Your task to perform on an android device: Open calendar and show me the third week of next month Image 0: 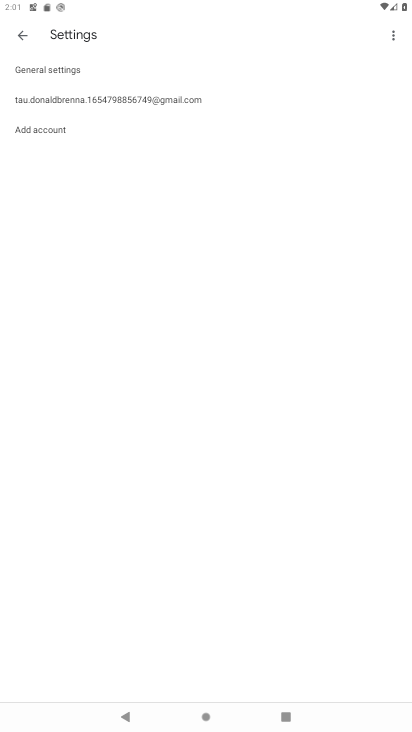
Step 0: press home button
Your task to perform on an android device: Open calendar and show me the third week of next month Image 1: 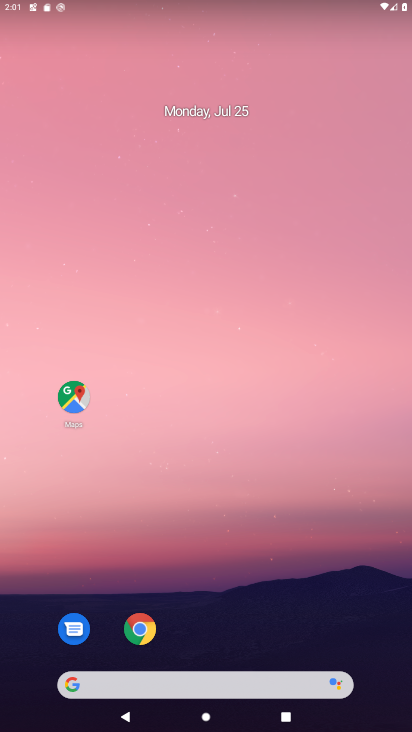
Step 1: drag from (338, 605) to (194, 238)
Your task to perform on an android device: Open calendar and show me the third week of next month Image 2: 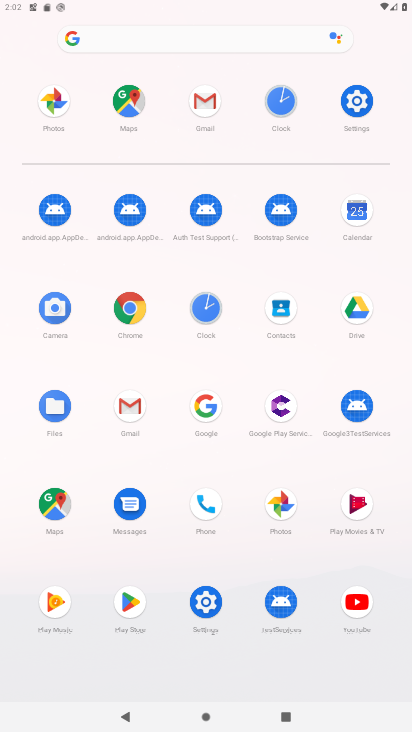
Step 2: click (363, 222)
Your task to perform on an android device: Open calendar and show me the third week of next month Image 3: 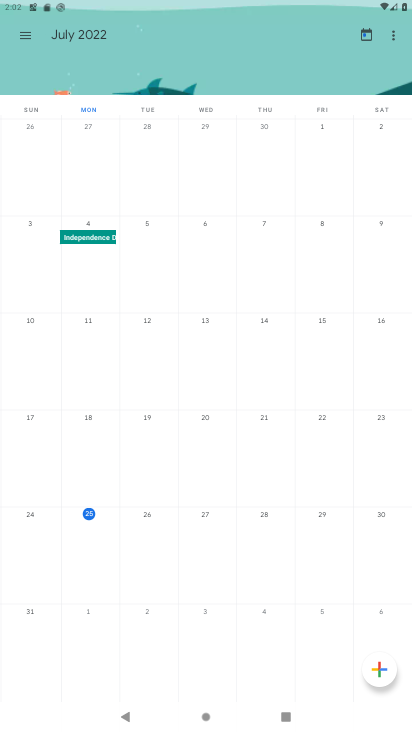
Step 3: drag from (375, 386) to (21, 172)
Your task to perform on an android device: Open calendar and show me the third week of next month Image 4: 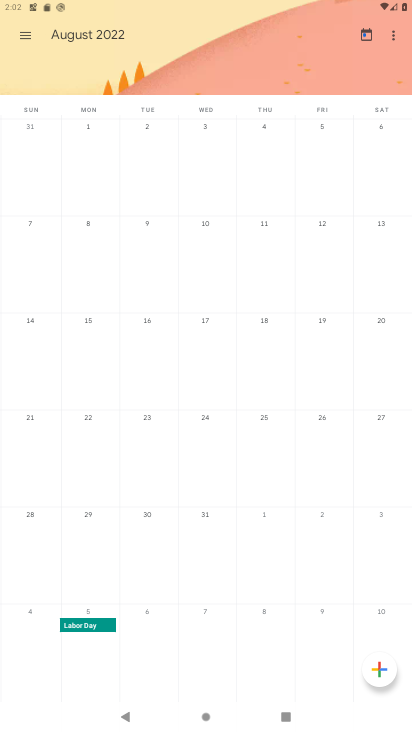
Step 4: click (29, 420)
Your task to perform on an android device: Open calendar and show me the third week of next month Image 5: 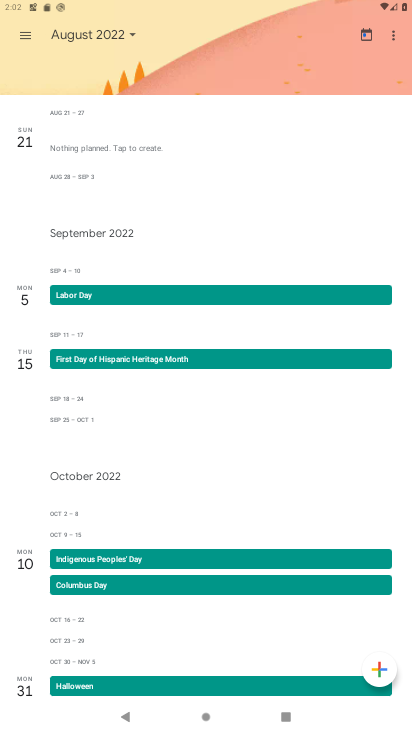
Step 5: task complete